Your task to perform on an android device: allow notifications from all sites in the chrome app Image 0: 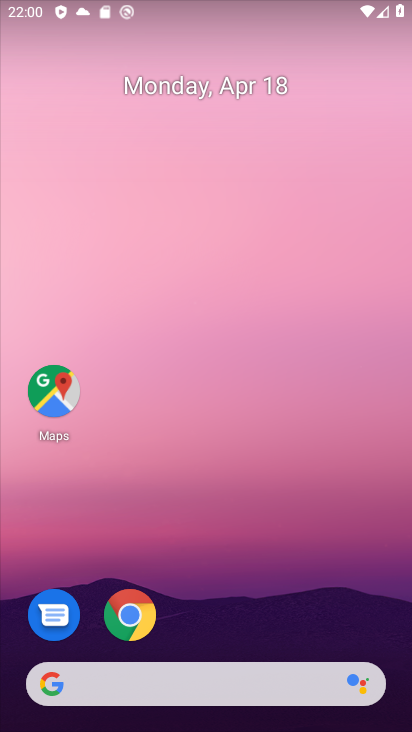
Step 0: click (129, 618)
Your task to perform on an android device: allow notifications from all sites in the chrome app Image 1: 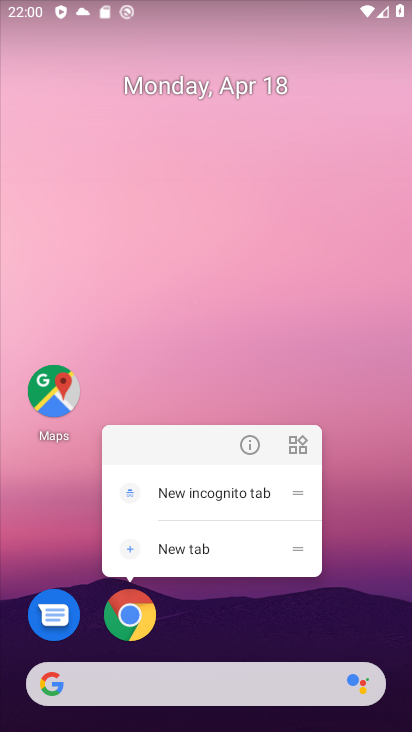
Step 1: click (139, 620)
Your task to perform on an android device: allow notifications from all sites in the chrome app Image 2: 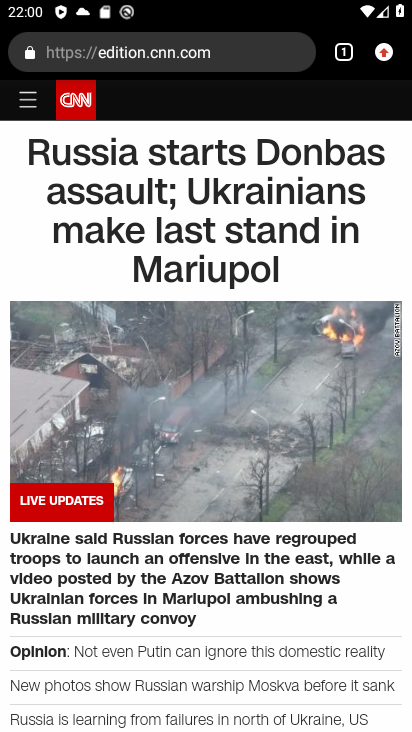
Step 2: click (382, 53)
Your task to perform on an android device: allow notifications from all sites in the chrome app Image 3: 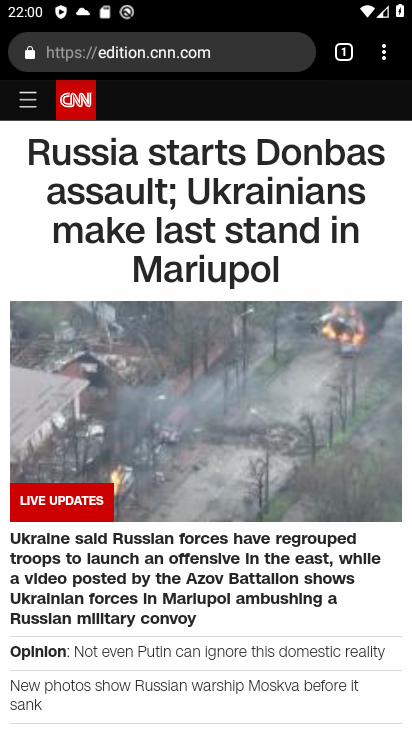
Step 3: click (383, 55)
Your task to perform on an android device: allow notifications from all sites in the chrome app Image 4: 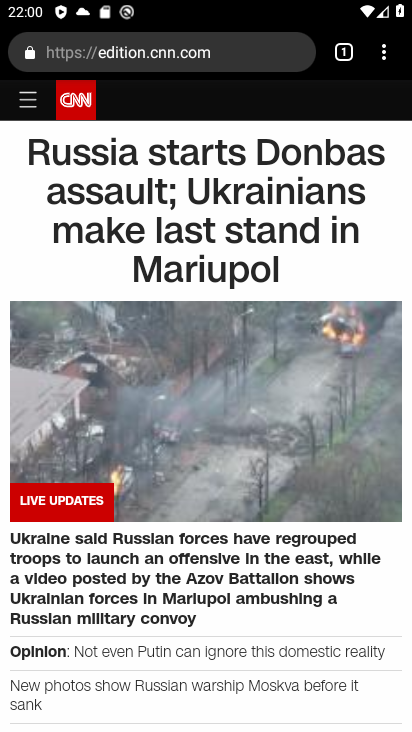
Step 4: click (383, 55)
Your task to perform on an android device: allow notifications from all sites in the chrome app Image 5: 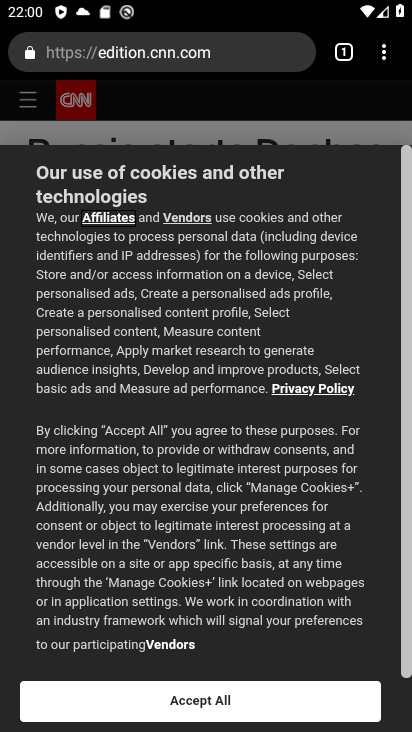
Step 5: click (388, 51)
Your task to perform on an android device: allow notifications from all sites in the chrome app Image 6: 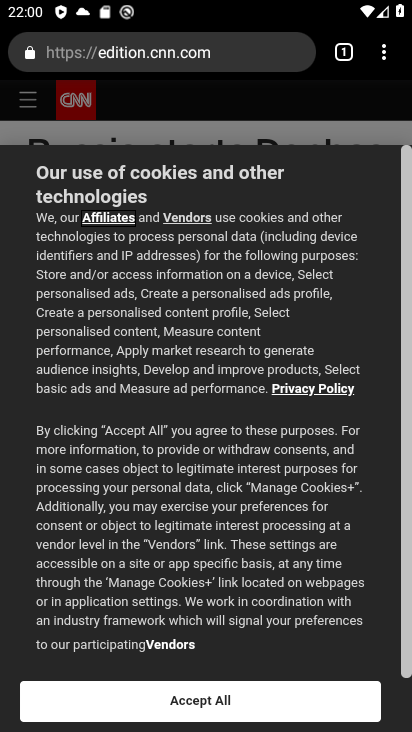
Step 6: click (388, 51)
Your task to perform on an android device: allow notifications from all sites in the chrome app Image 7: 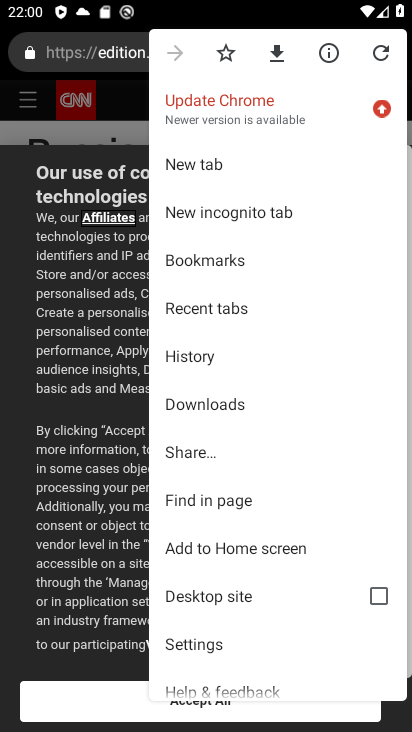
Step 7: click (221, 650)
Your task to perform on an android device: allow notifications from all sites in the chrome app Image 8: 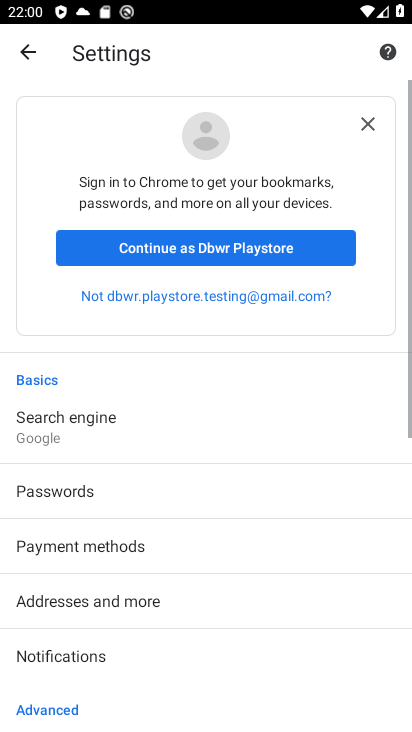
Step 8: drag from (224, 606) to (203, 173)
Your task to perform on an android device: allow notifications from all sites in the chrome app Image 9: 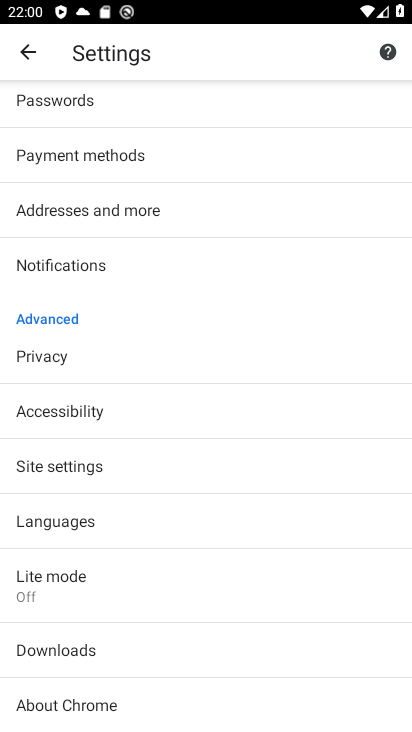
Step 9: drag from (172, 538) to (172, 347)
Your task to perform on an android device: allow notifications from all sites in the chrome app Image 10: 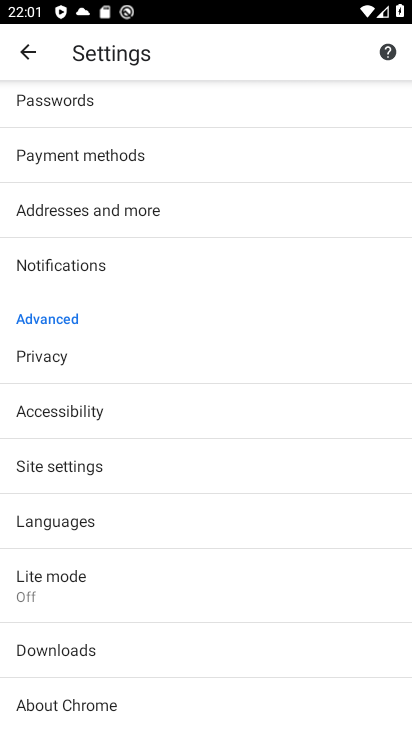
Step 10: click (79, 470)
Your task to perform on an android device: allow notifications from all sites in the chrome app Image 11: 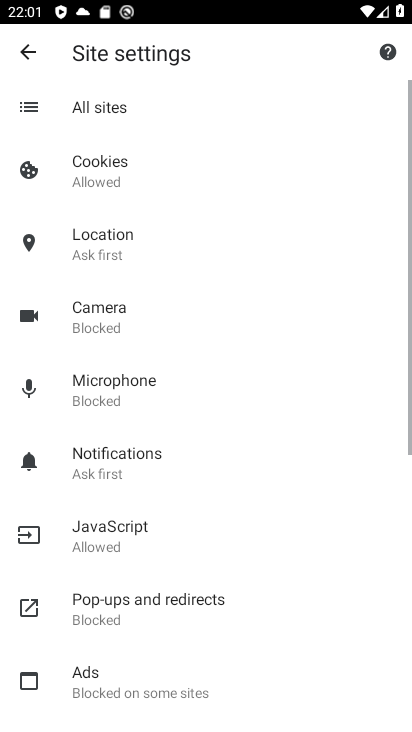
Step 11: click (79, 470)
Your task to perform on an android device: allow notifications from all sites in the chrome app Image 12: 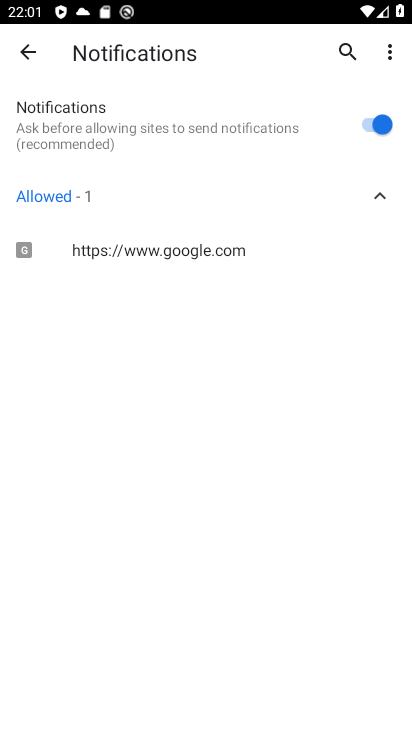
Step 12: task complete